Your task to perform on an android device: Go to CNN.com Image 0: 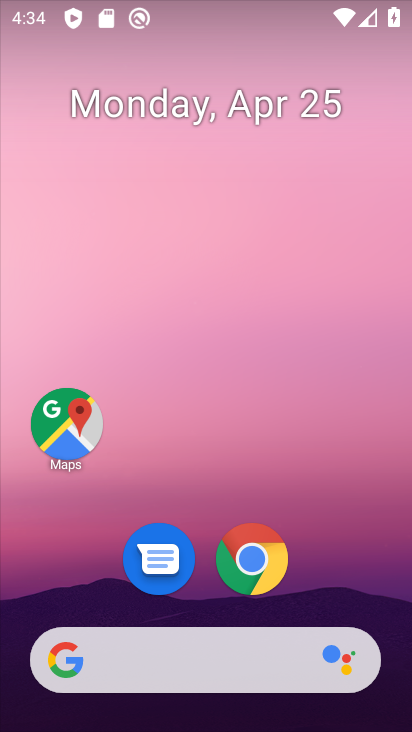
Step 0: click (162, 638)
Your task to perform on an android device: Go to CNN.com Image 1: 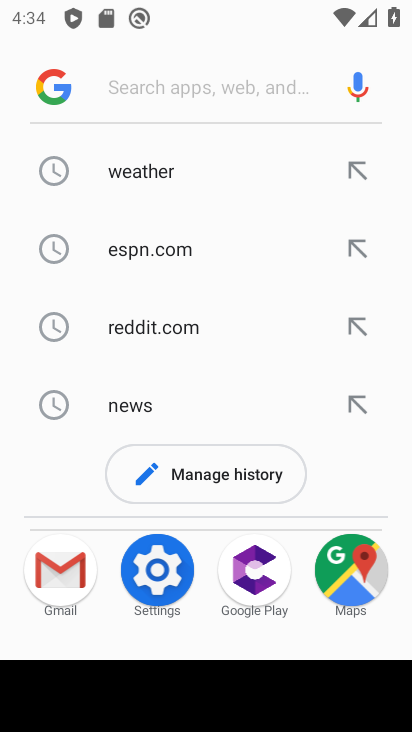
Step 1: type "cnn.com"
Your task to perform on an android device: Go to CNN.com Image 2: 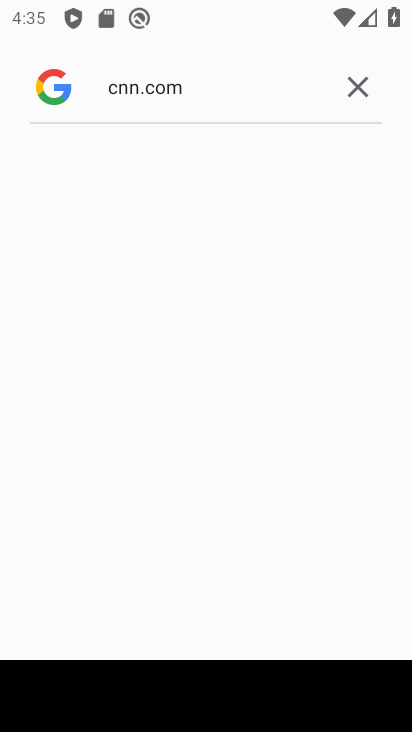
Step 2: click (233, 83)
Your task to perform on an android device: Go to CNN.com Image 3: 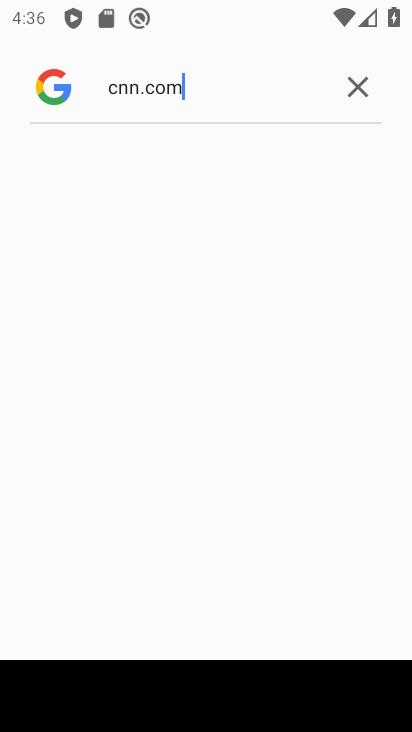
Step 3: task complete